Your task to perform on an android device: turn on improve location accuracy Image 0: 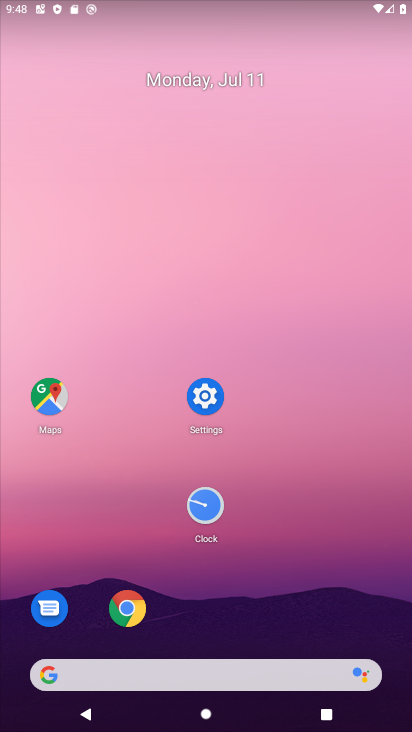
Step 0: click (205, 401)
Your task to perform on an android device: turn on improve location accuracy Image 1: 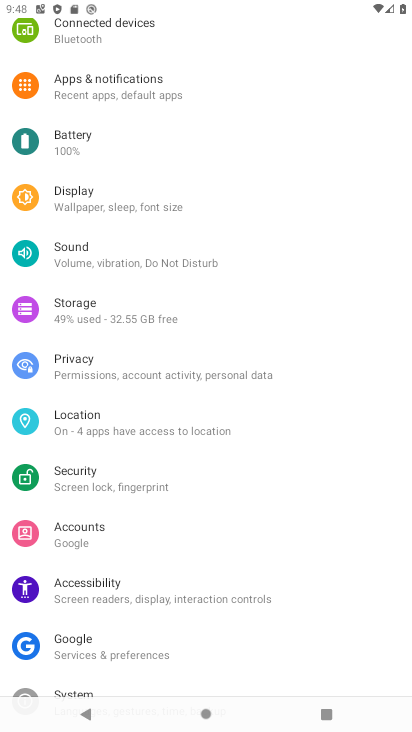
Step 1: click (76, 411)
Your task to perform on an android device: turn on improve location accuracy Image 2: 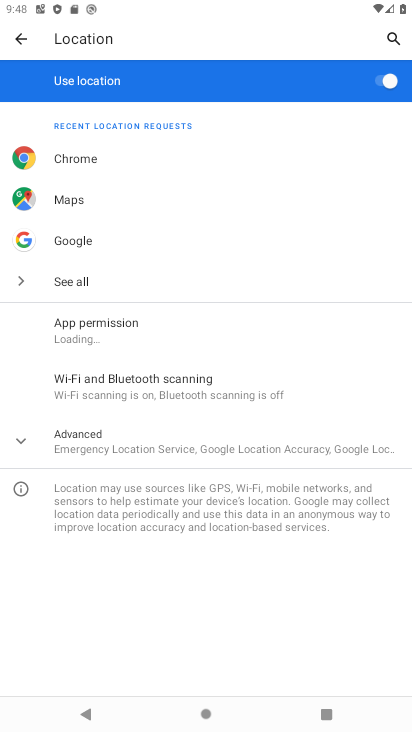
Step 2: click (19, 438)
Your task to perform on an android device: turn on improve location accuracy Image 3: 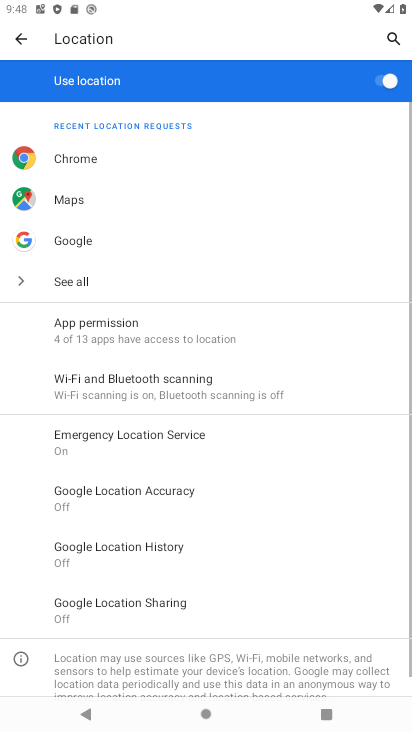
Step 3: click (78, 492)
Your task to perform on an android device: turn on improve location accuracy Image 4: 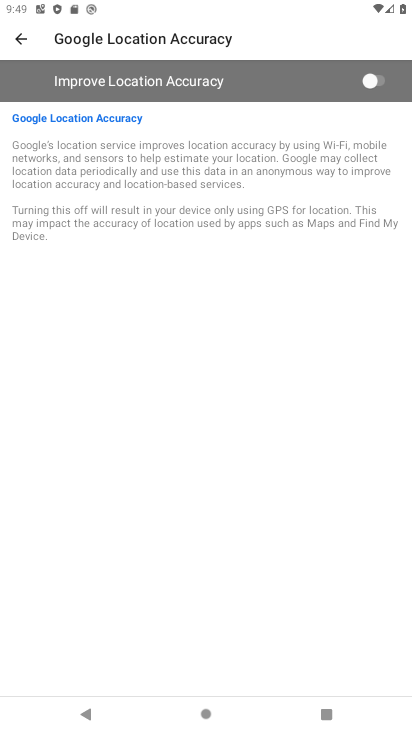
Step 4: click (382, 80)
Your task to perform on an android device: turn on improve location accuracy Image 5: 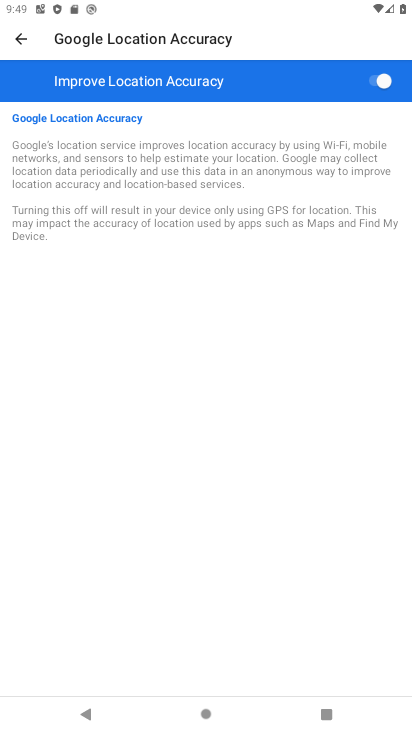
Step 5: task complete